Your task to perform on an android device: Go to sound settings Image 0: 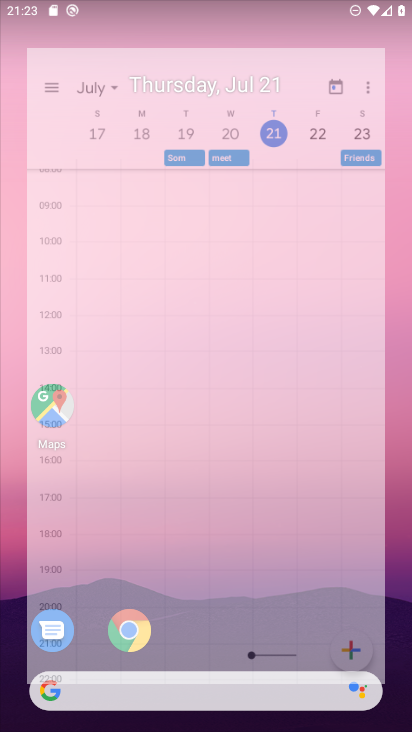
Step 0: drag from (352, 599) to (308, 46)
Your task to perform on an android device: Go to sound settings Image 1: 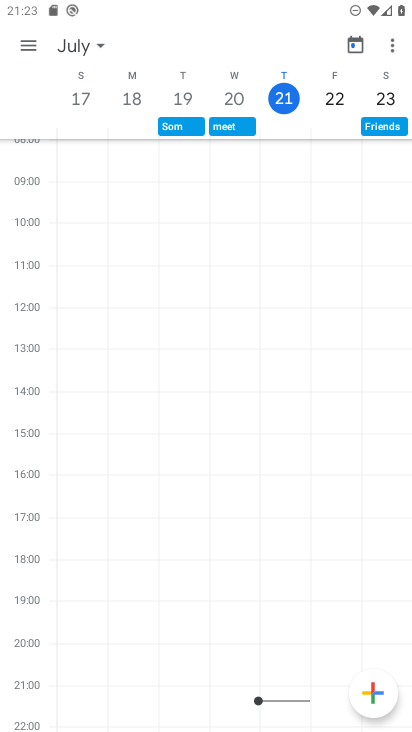
Step 1: press home button
Your task to perform on an android device: Go to sound settings Image 2: 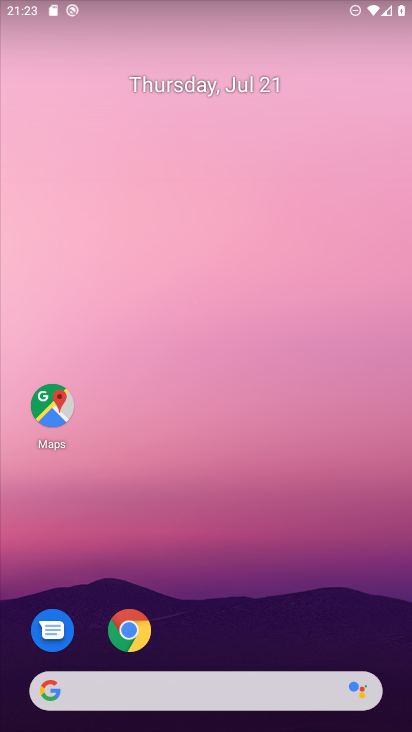
Step 2: drag from (305, 556) to (228, 74)
Your task to perform on an android device: Go to sound settings Image 3: 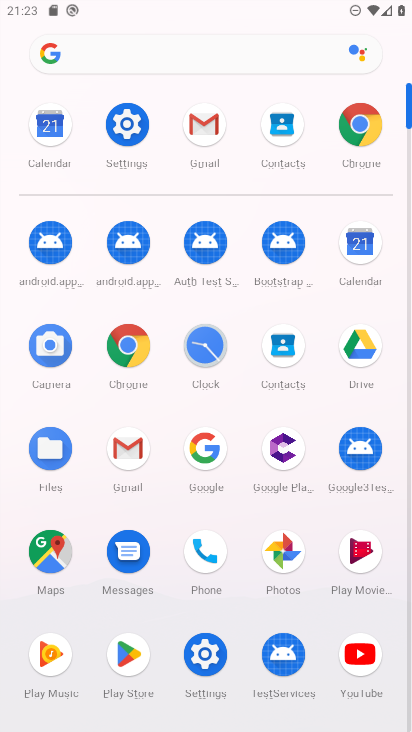
Step 3: click (131, 120)
Your task to perform on an android device: Go to sound settings Image 4: 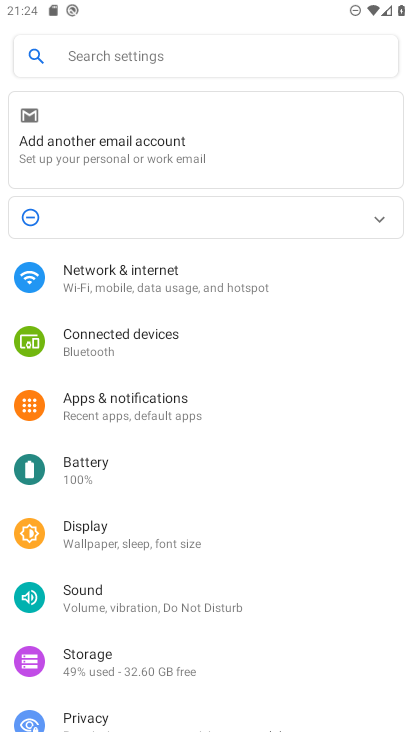
Step 4: drag from (264, 685) to (244, 228)
Your task to perform on an android device: Go to sound settings Image 5: 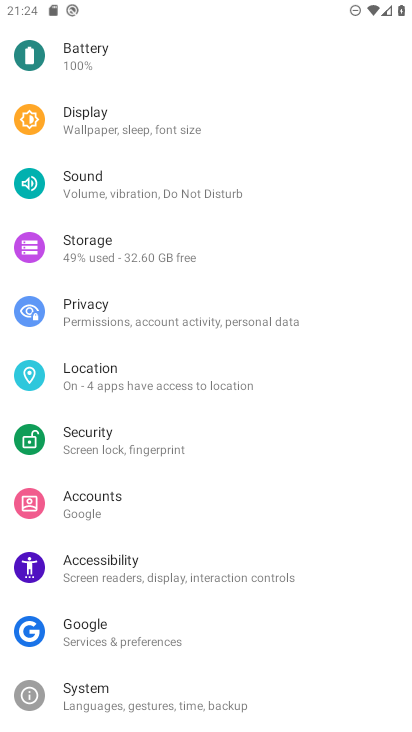
Step 5: click (118, 188)
Your task to perform on an android device: Go to sound settings Image 6: 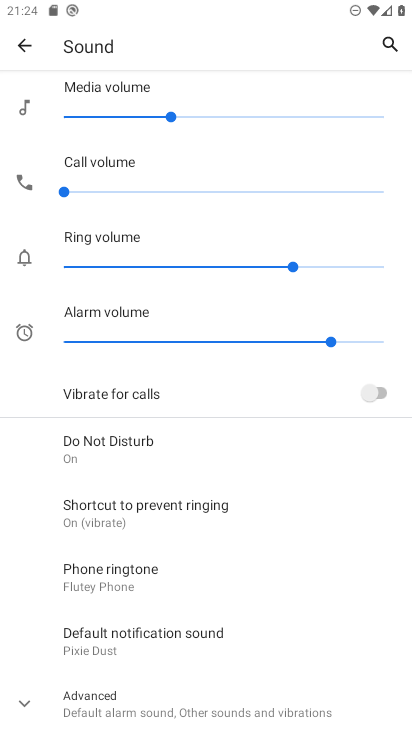
Step 6: task complete